Your task to perform on an android device: What's on my calendar tomorrow? Image 0: 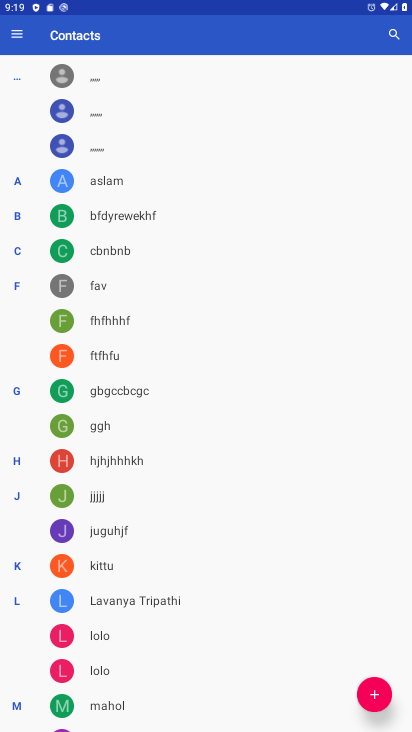
Step 0: press home button
Your task to perform on an android device: What's on my calendar tomorrow? Image 1: 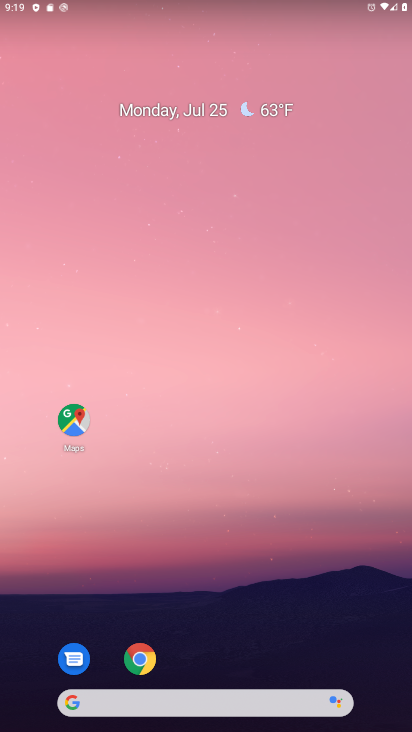
Step 1: drag from (193, 653) to (193, 190)
Your task to perform on an android device: What's on my calendar tomorrow? Image 2: 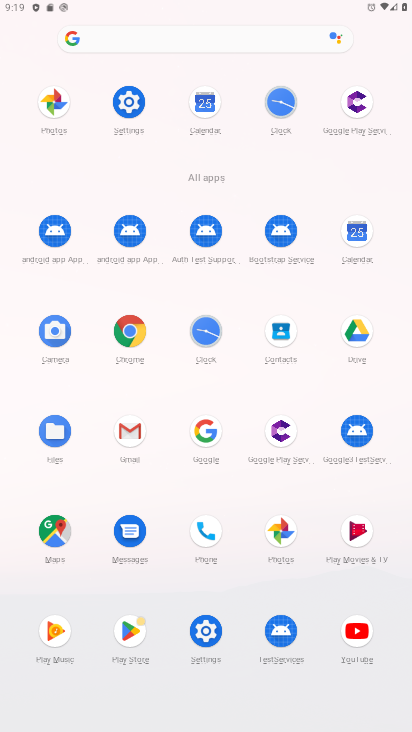
Step 2: click (360, 232)
Your task to perform on an android device: What's on my calendar tomorrow? Image 3: 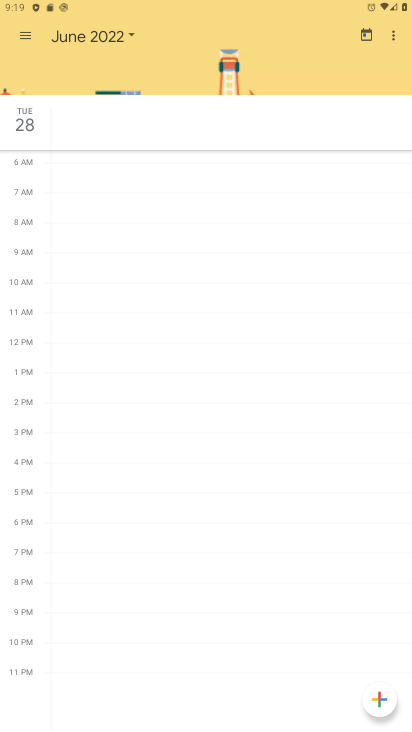
Step 3: click (31, 111)
Your task to perform on an android device: What's on my calendar tomorrow? Image 4: 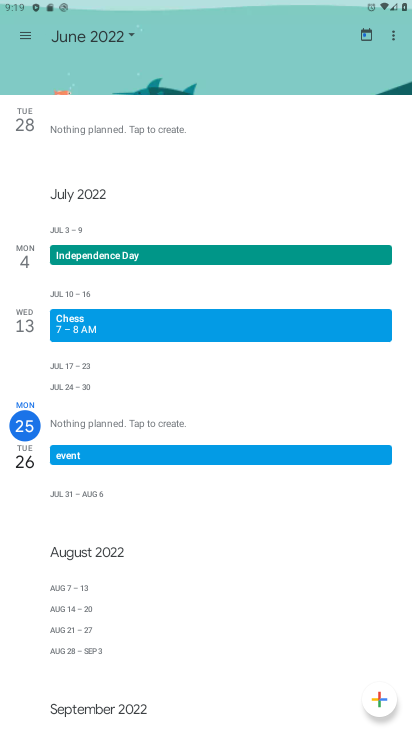
Step 4: click (134, 31)
Your task to perform on an android device: What's on my calendar tomorrow? Image 5: 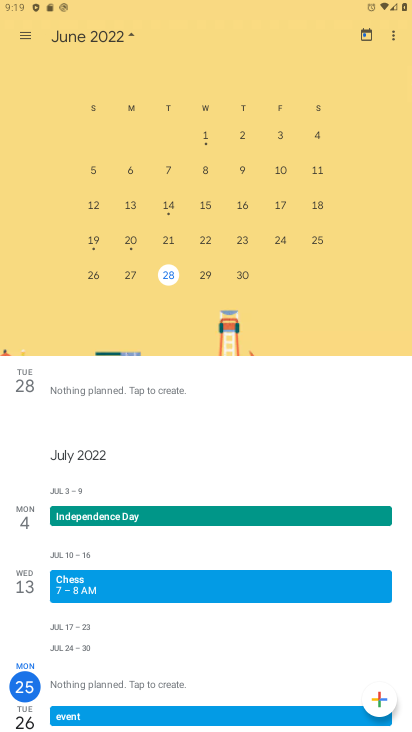
Step 5: click (202, 273)
Your task to perform on an android device: What's on my calendar tomorrow? Image 6: 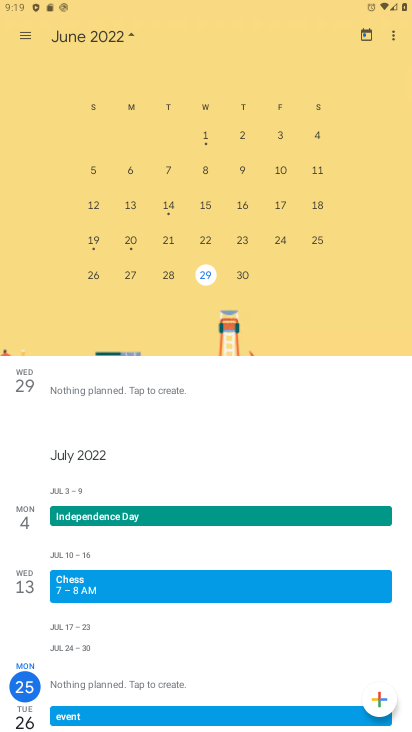
Step 6: click (202, 273)
Your task to perform on an android device: What's on my calendar tomorrow? Image 7: 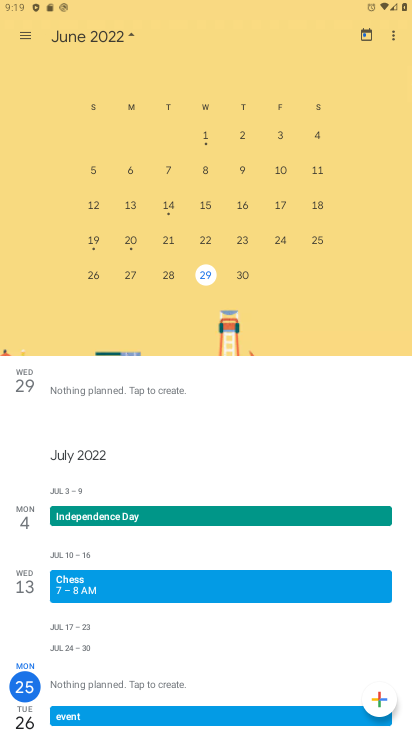
Step 7: click (202, 273)
Your task to perform on an android device: What's on my calendar tomorrow? Image 8: 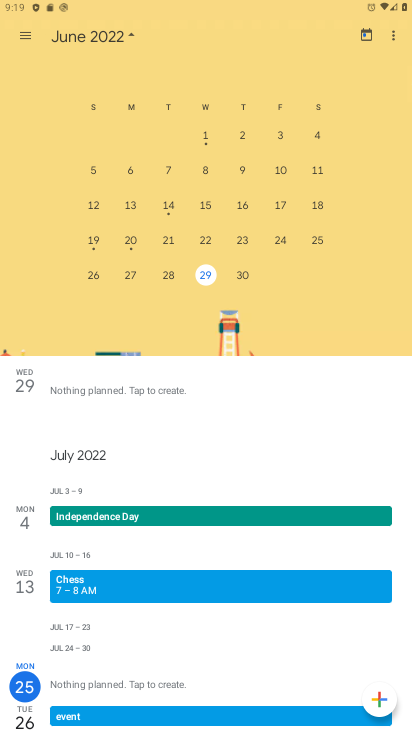
Step 8: click (202, 273)
Your task to perform on an android device: What's on my calendar tomorrow? Image 9: 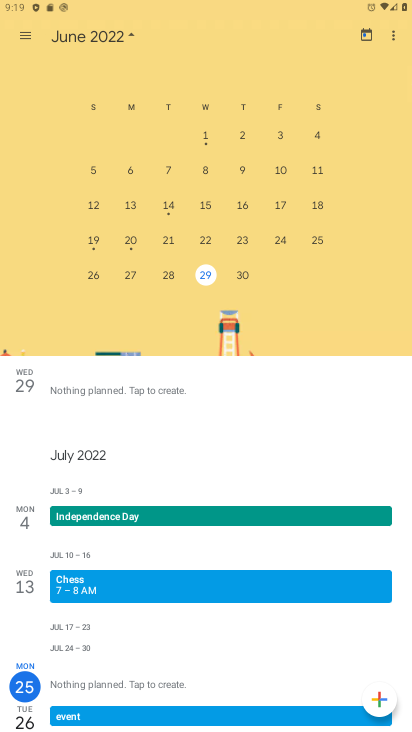
Step 9: click (20, 378)
Your task to perform on an android device: What's on my calendar tomorrow? Image 10: 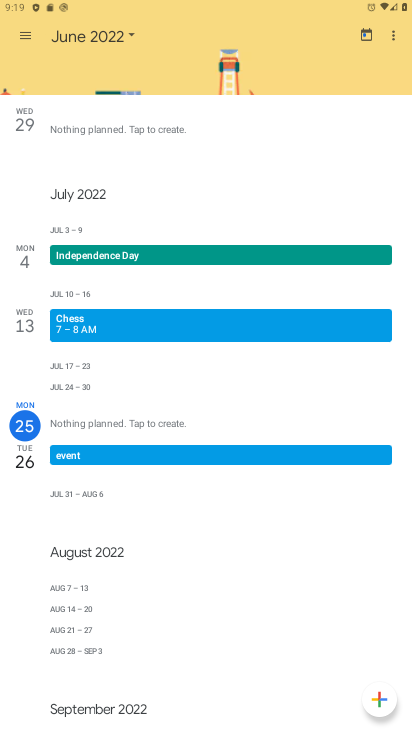
Step 10: task complete